Your task to perform on an android device: open chrome and create a bookmark for the current page Image 0: 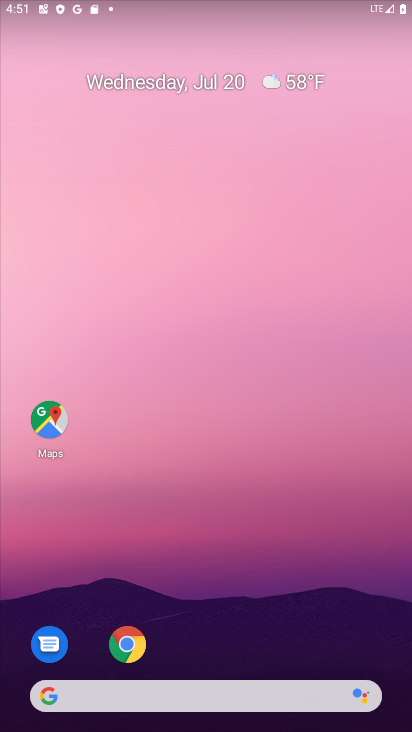
Step 0: press home button
Your task to perform on an android device: open chrome and create a bookmark for the current page Image 1: 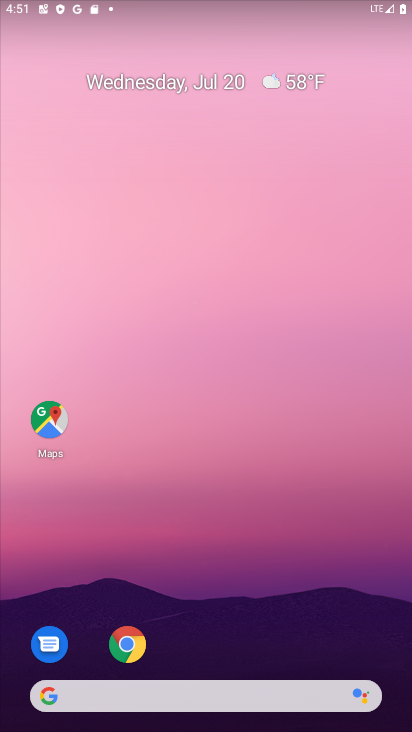
Step 1: drag from (169, 661) to (229, 12)
Your task to perform on an android device: open chrome and create a bookmark for the current page Image 2: 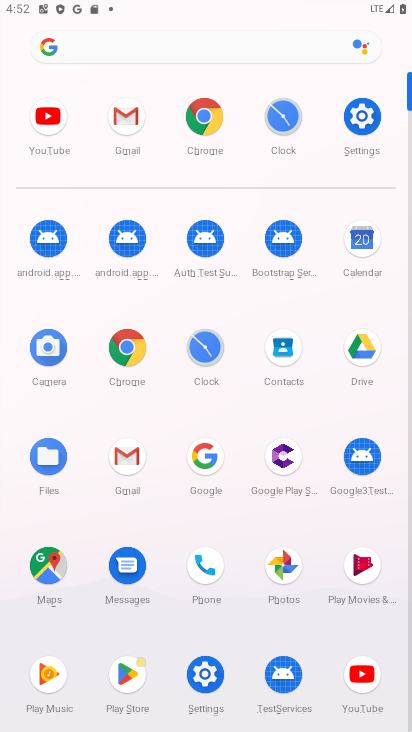
Step 2: click (206, 113)
Your task to perform on an android device: open chrome and create a bookmark for the current page Image 3: 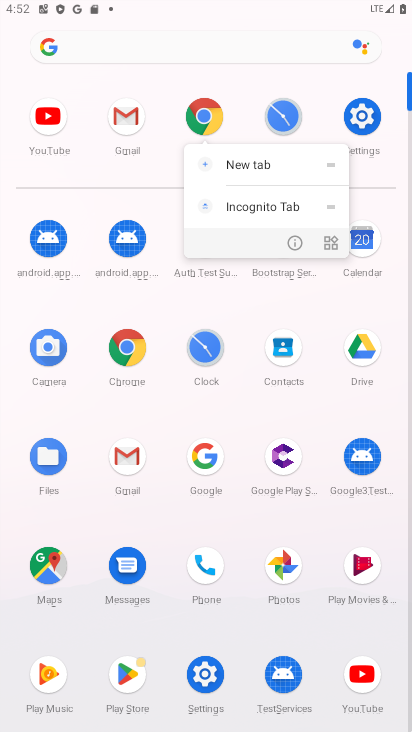
Step 3: click (206, 113)
Your task to perform on an android device: open chrome and create a bookmark for the current page Image 4: 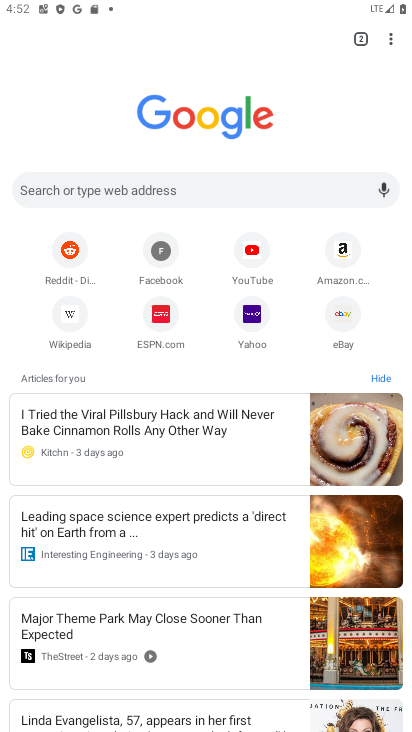
Step 4: task complete